Your task to perform on an android device: Open Google Maps and go to "Timeline" Image 0: 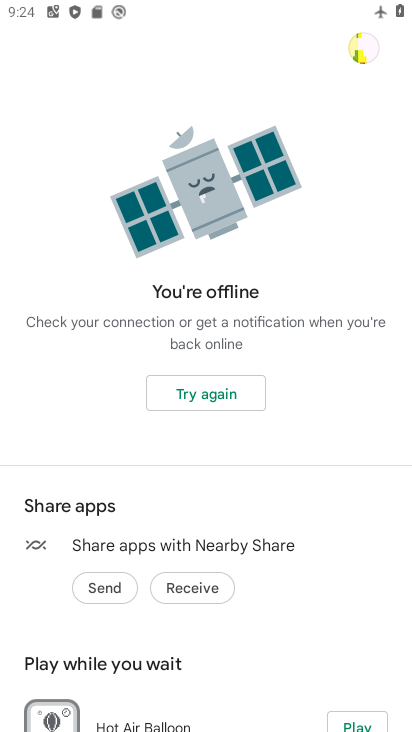
Step 0: press home button
Your task to perform on an android device: Open Google Maps and go to "Timeline" Image 1: 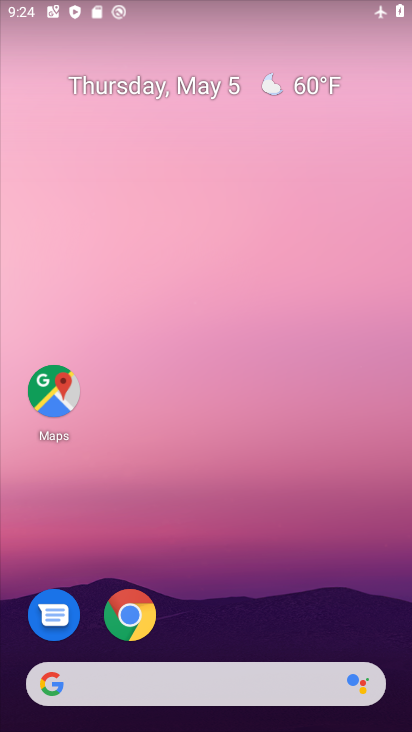
Step 1: click (56, 395)
Your task to perform on an android device: Open Google Maps and go to "Timeline" Image 2: 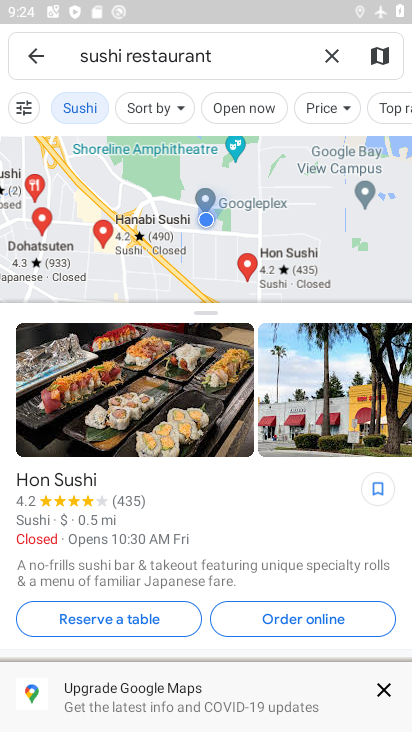
Step 2: press back button
Your task to perform on an android device: Open Google Maps and go to "Timeline" Image 3: 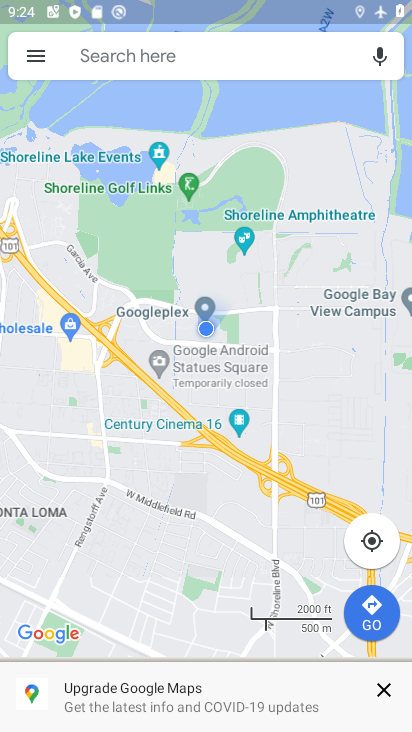
Step 3: click (31, 50)
Your task to perform on an android device: Open Google Maps and go to "Timeline" Image 4: 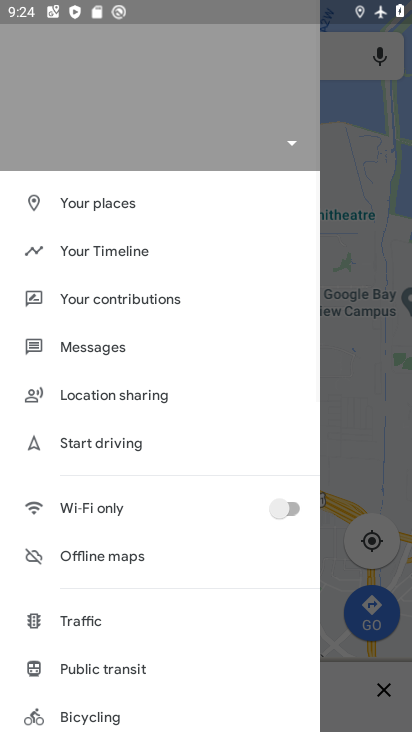
Step 4: click (111, 256)
Your task to perform on an android device: Open Google Maps and go to "Timeline" Image 5: 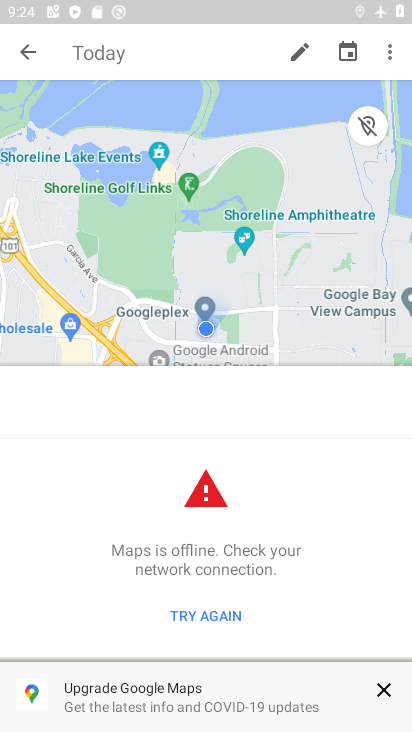
Step 5: task complete